Your task to perform on an android device: empty trash in the gmail app Image 0: 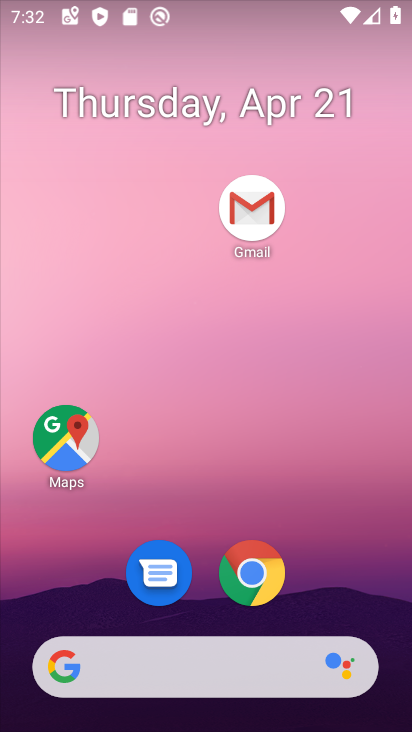
Step 0: click (251, 212)
Your task to perform on an android device: empty trash in the gmail app Image 1: 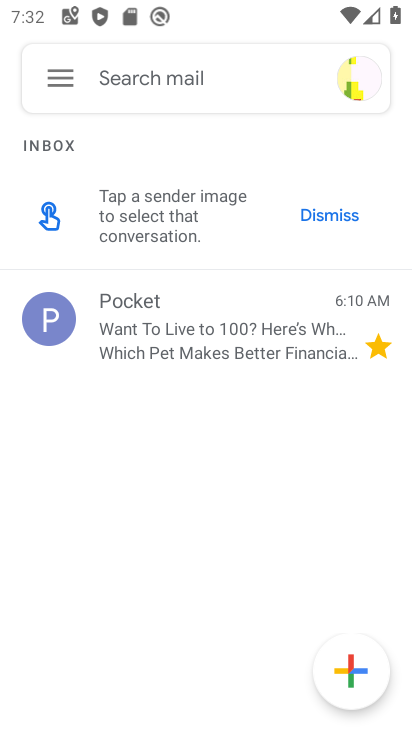
Step 1: click (66, 86)
Your task to perform on an android device: empty trash in the gmail app Image 2: 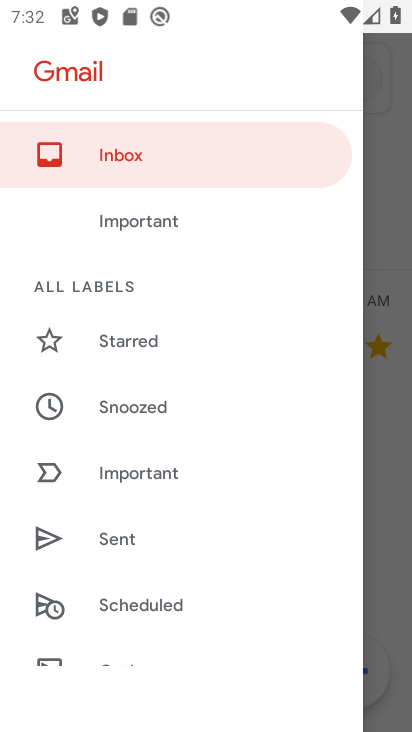
Step 2: drag from (203, 559) to (214, 202)
Your task to perform on an android device: empty trash in the gmail app Image 3: 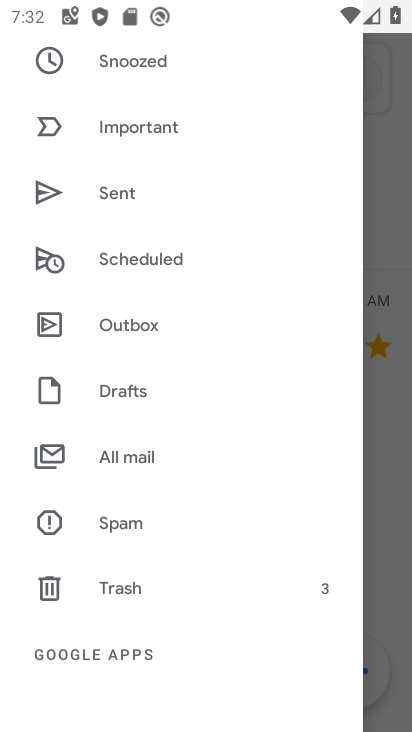
Step 3: click (142, 586)
Your task to perform on an android device: empty trash in the gmail app Image 4: 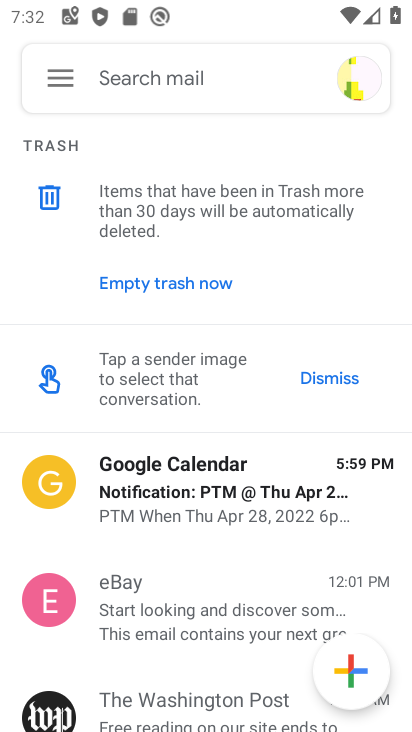
Step 4: click (43, 81)
Your task to perform on an android device: empty trash in the gmail app Image 5: 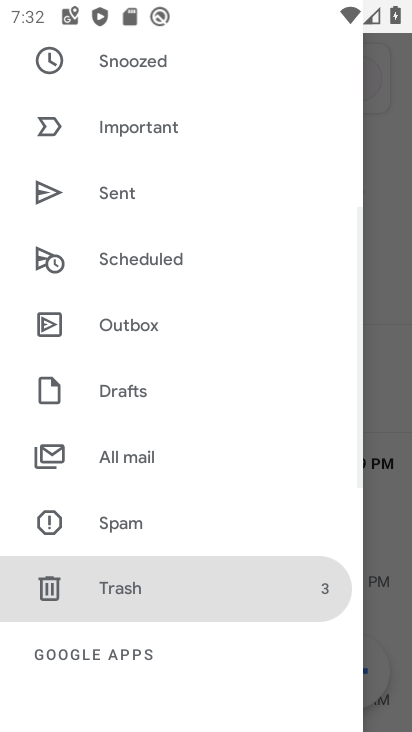
Step 5: click (162, 592)
Your task to perform on an android device: empty trash in the gmail app Image 6: 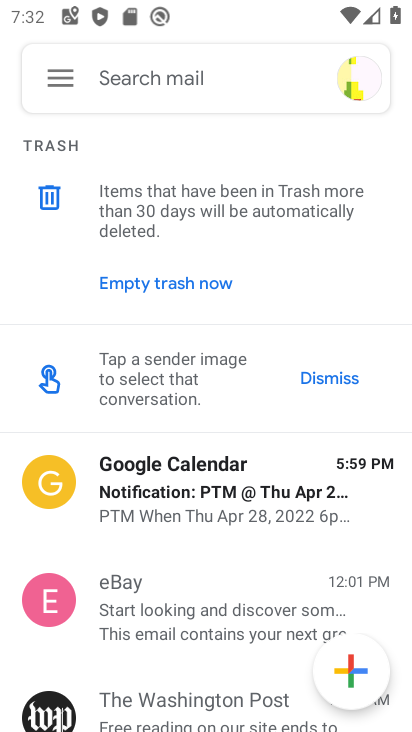
Step 6: drag from (162, 592) to (103, 209)
Your task to perform on an android device: empty trash in the gmail app Image 7: 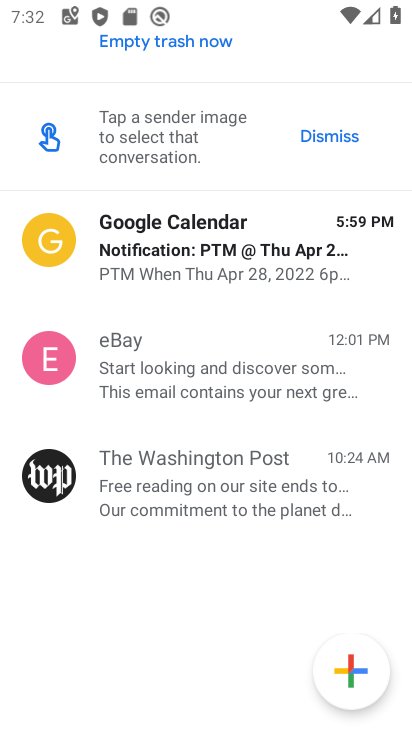
Step 7: drag from (193, 209) to (171, 519)
Your task to perform on an android device: empty trash in the gmail app Image 8: 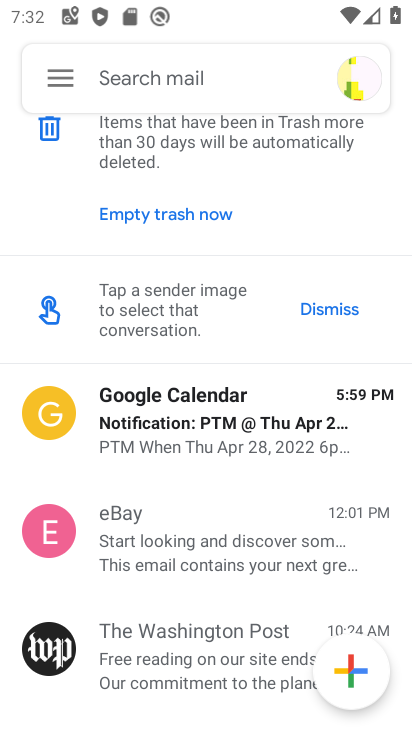
Step 8: click (56, 133)
Your task to perform on an android device: empty trash in the gmail app Image 9: 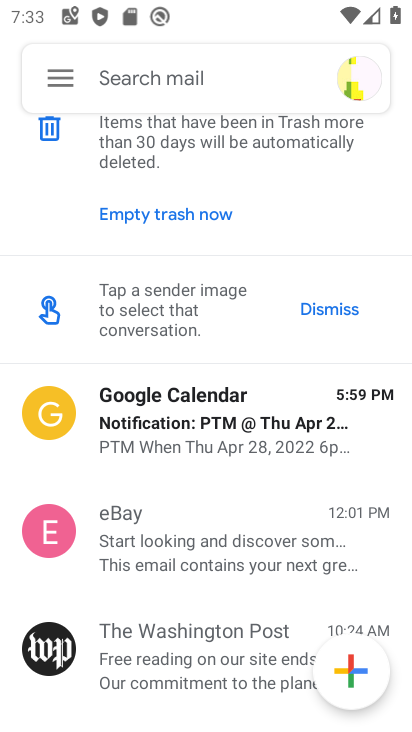
Step 9: click (46, 121)
Your task to perform on an android device: empty trash in the gmail app Image 10: 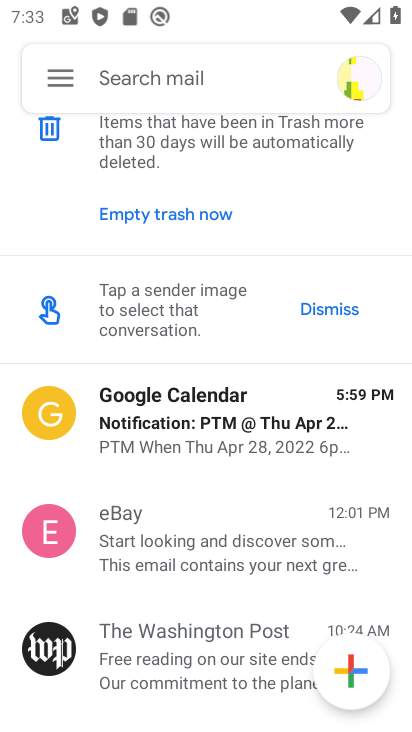
Step 10: click (46, 121)
Your task to perform on an android device: empty trash in the gmail app Image 11: 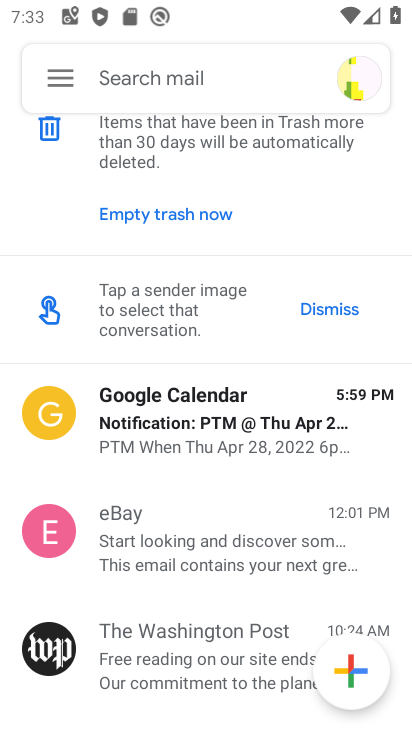
Step 11: click (178, 216)
Your task to perform on an android device: empty trash in the gmail app Image 12: 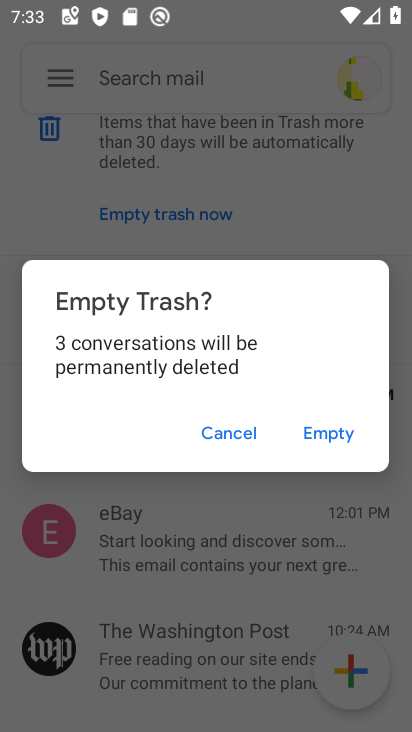
Step 12: click (331, 431)
Your task to perform on an android device: empty trash in the gmail app Image 13: 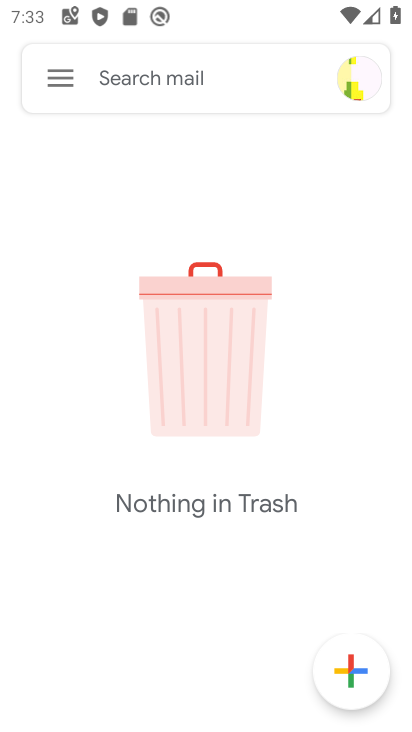
Step 13: task complete